Your task to perform on an android device: Open Google Image 0: 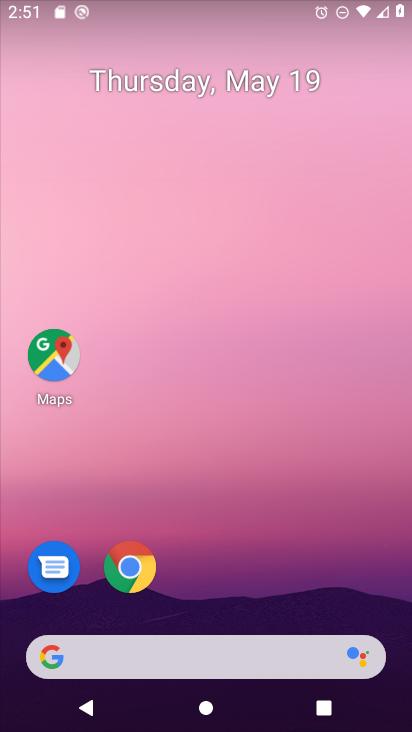
Step 0: click (209, 656)
Your task to perform on an android device: Open Google Image 1: 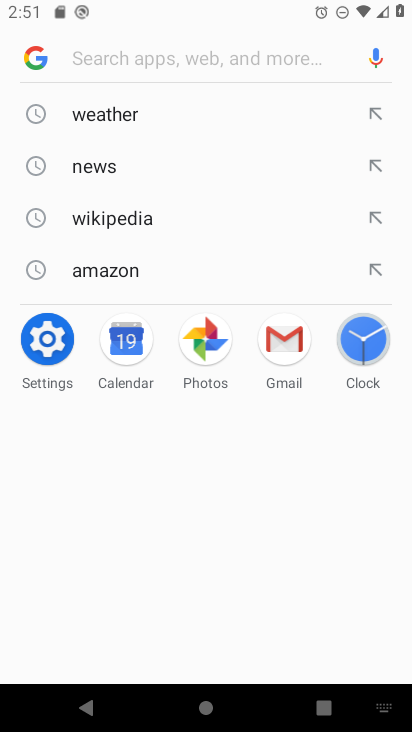
Step 1: click (33, 51)
Your task to perform on an android device: Open Google Image 2: 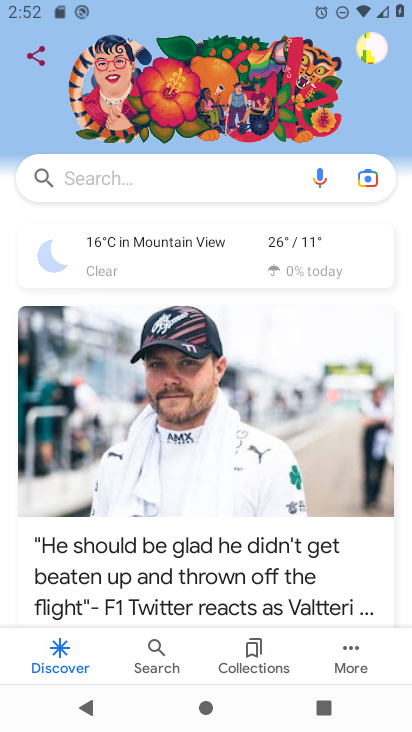
Step 2: task complete